Your task to perform on an android device: turn pop-ups on in chrome Image 0: 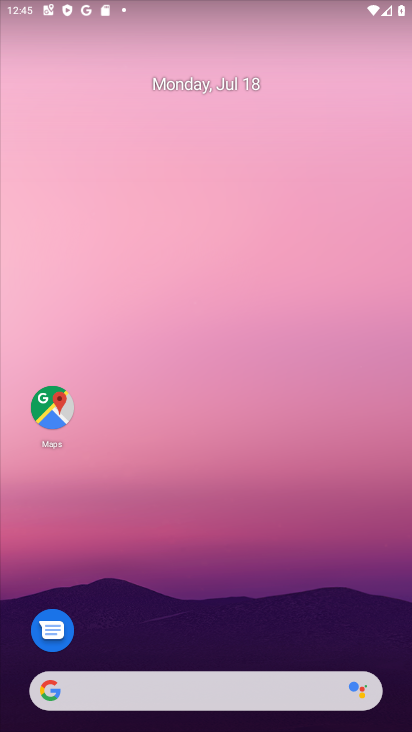
Step 0: drag from (165, 676) to (174, 18)
Your task to perform on an android device: turn pop-ups on in chrome Image 1: 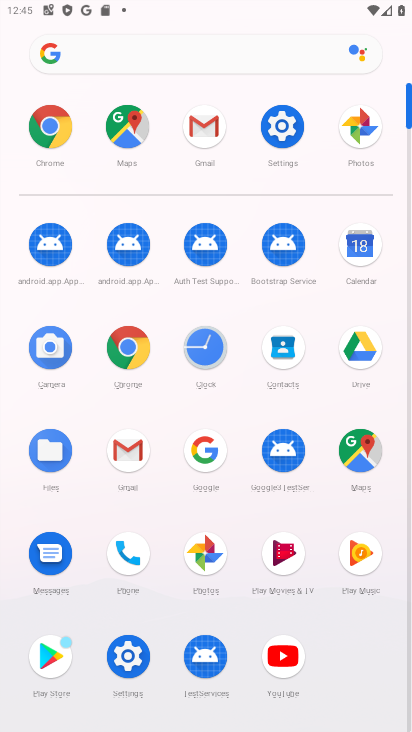
Step 1: click (117, 348)
Your task to perform on an android device: turn pop-ups on in chrome Image 2: 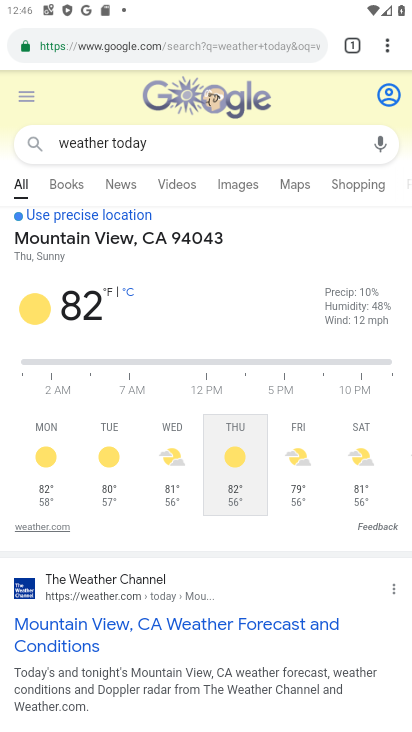
Step 2: click (385, 39)
Your task to perform on an android device: turn pop-ups on in chrome Image 3: 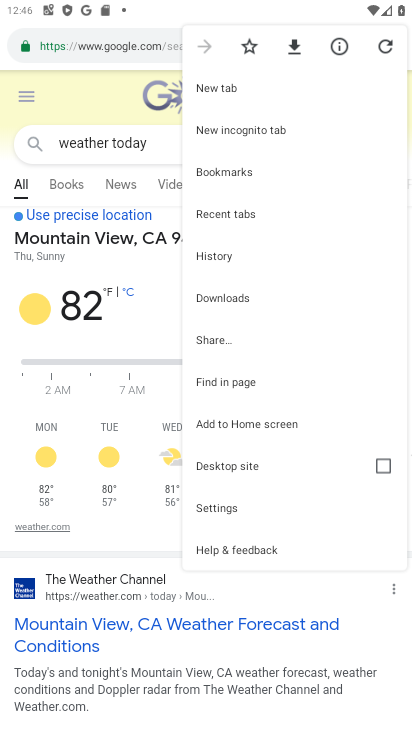
Step 3: click (258, 518)
Your task to perform on an android device: turn pop-ups on in chrome Image 4: 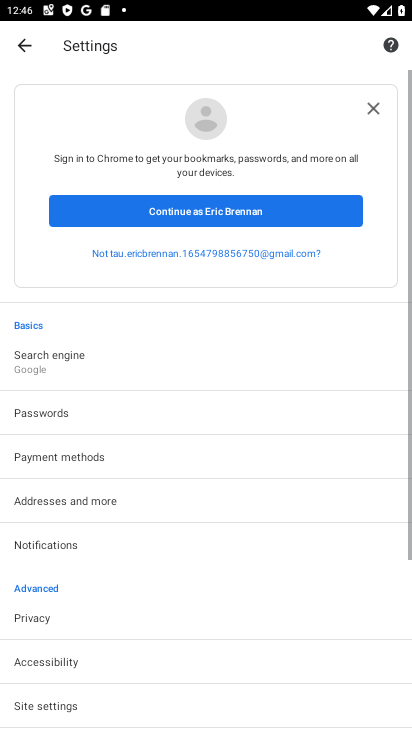
Step 4: drag from (218, 568) to (248, 210)
Your task to perform on an android device: turn pop-ups on in chrome Image 5: 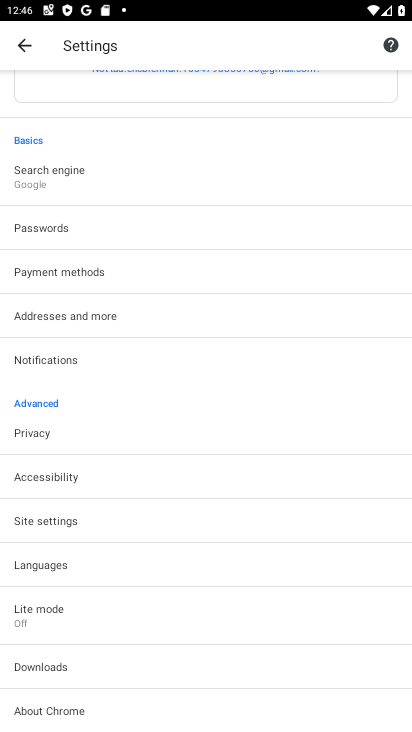
Step 5: click (90, 527)
Your task to perform on an android device: turn pop-ups on in chrome Image 6: 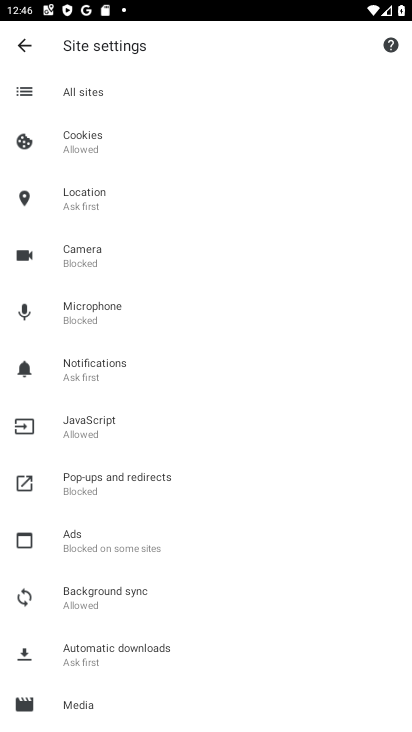
Step 6: click (151, 480)
Your task to perform on an android device: turn pop-ups on in chrome Image 7: 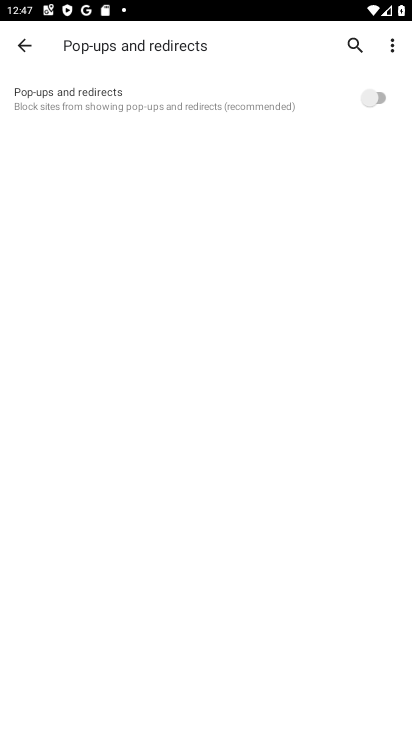
Step 7: click (370, 96)
Your task to perform on an android device: turn pop-ups on in chrome Image 8: 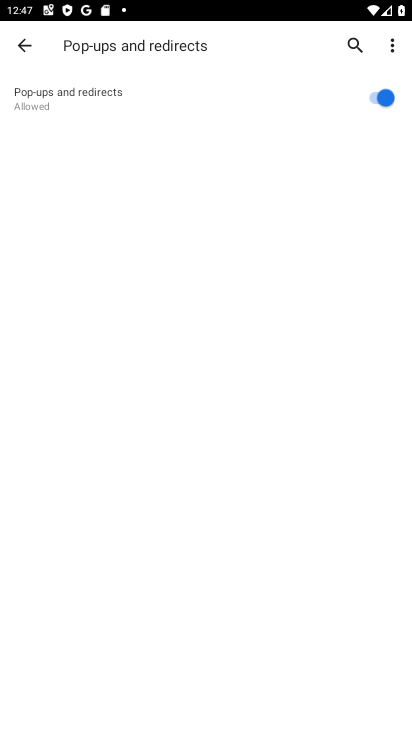
Step 8: task complete